Your task to perform on an android device: Open Android settings Image 0: 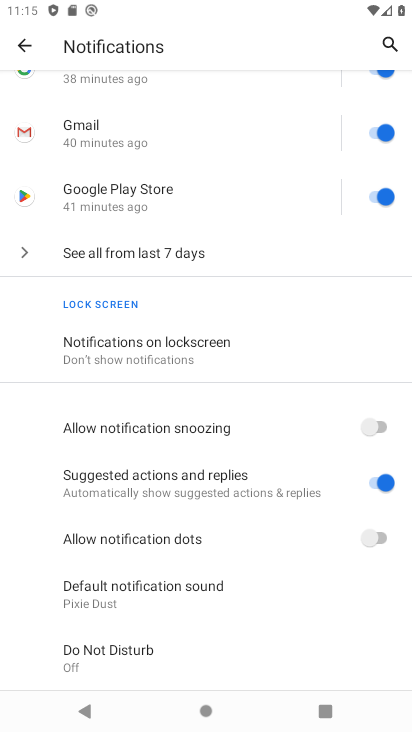
Step 0: click (25, 45)
Your task to perform on an android device: Open Android settings Image 1: 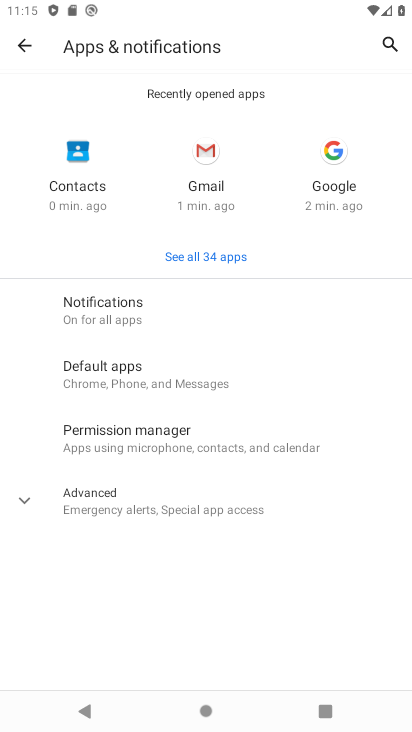
Step 1: click (23, 39)
Your task to perform on an android device: Open Android settings Image 2: 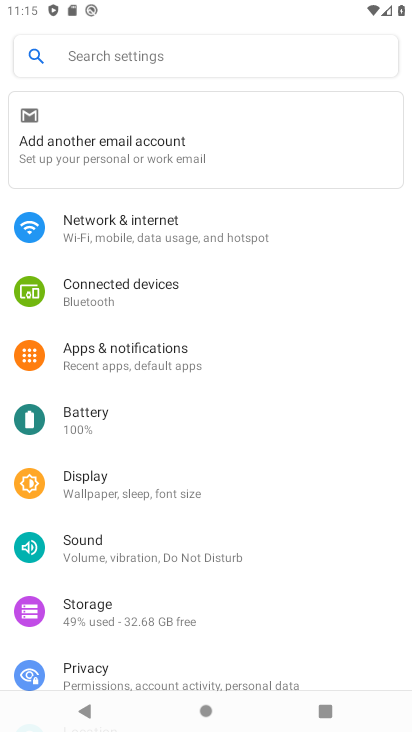
Step 2: task complete